Your task to perform on an android device: delete a single message in the gmail app Image 0: 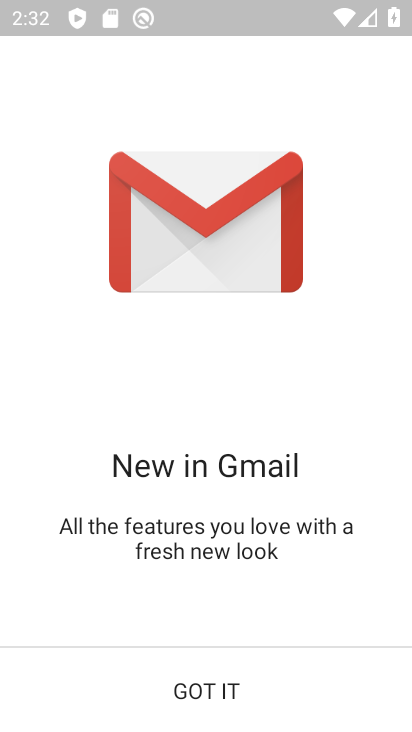
Step 0: click (246, 692)
Your task to perform on an android device: delete a single message in the gmail app Image 1: 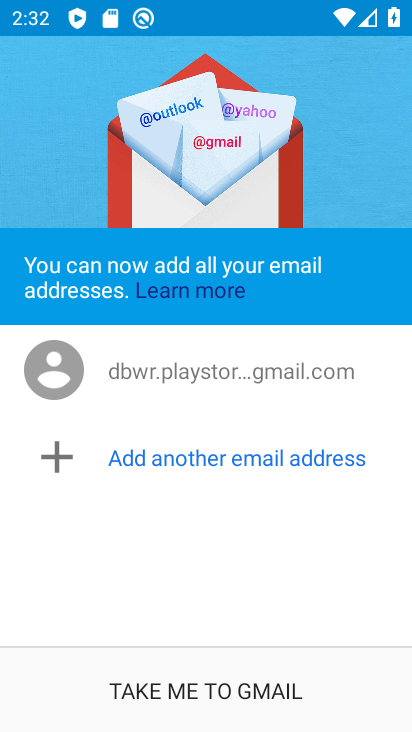
Step 1: click (246, 693)
Your task to perform on an android device: delete a single message in the gmail app Image 2: 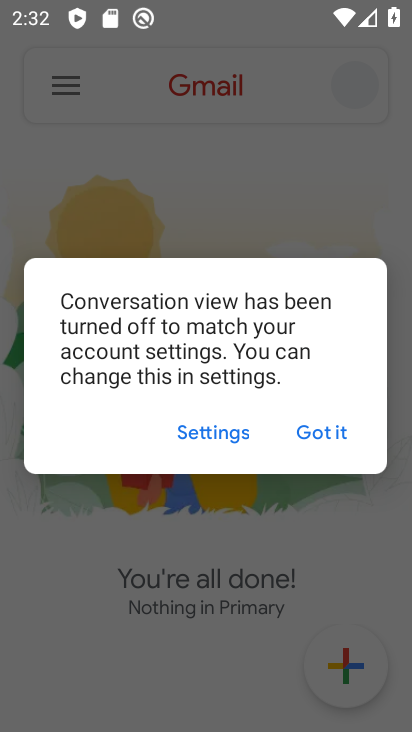
Step 2: click (333, 438)
Your task to perform on an android device: delete a single message in the gmail app Image 3: 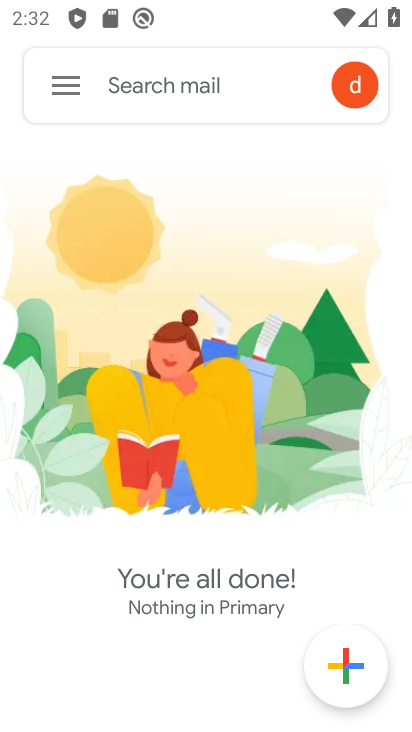
Step 3: click (62, 89)
Your task to perform on an android device: delete a single message in the gmail app Image 4: 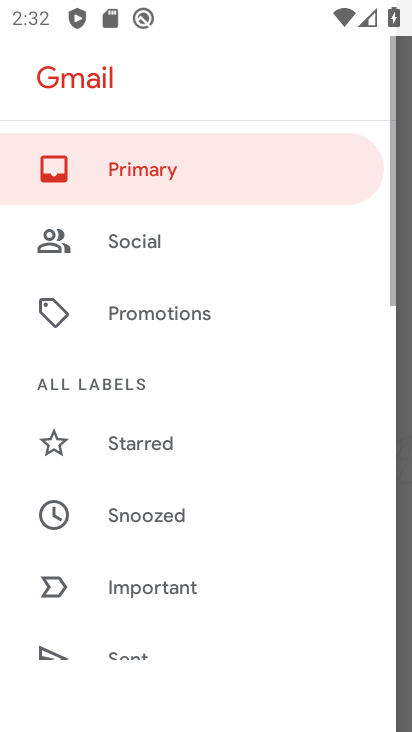
Step 4: drag from (111, 637) to (289, 168)
Your task to perform on an android device: delete a single message in the gmail app Image 5: 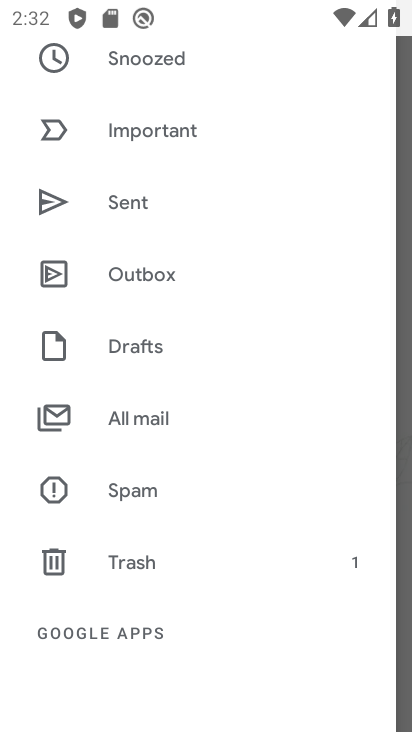
Step 5: click (187, 431)
Your task to perform on an android device: delete a single message in the gmail app Image 6: 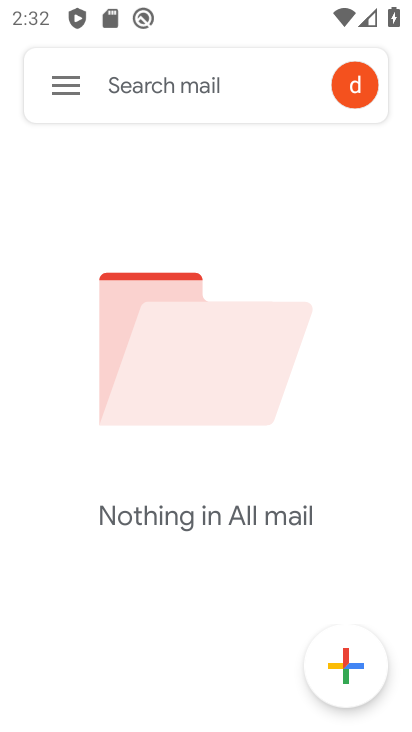
Step 6: task complete